Your task to perform on an android device: What is the recent news? Image 0: 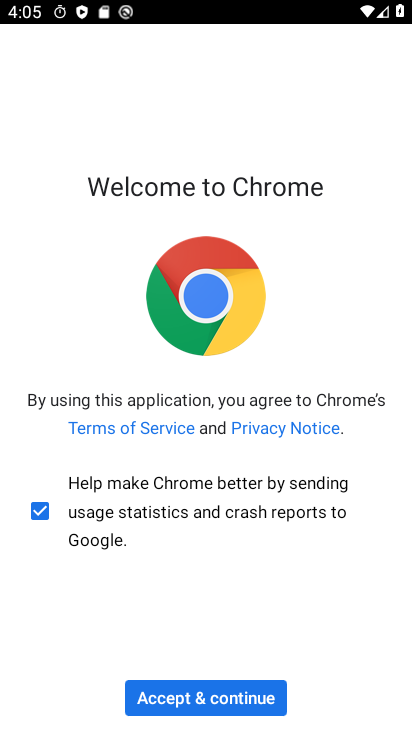
Step 0: press home button
Your task to perform on an android device: What is the recent news? Image 1: 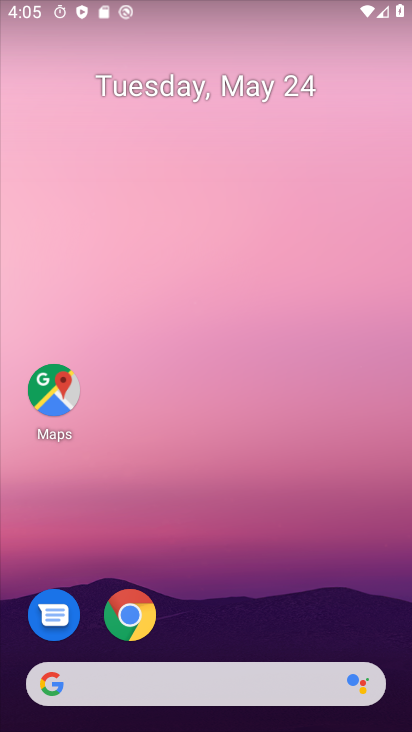
Step 1: click (122, 686)
Your task to perform on an android device: What is the recent news? Image 2: 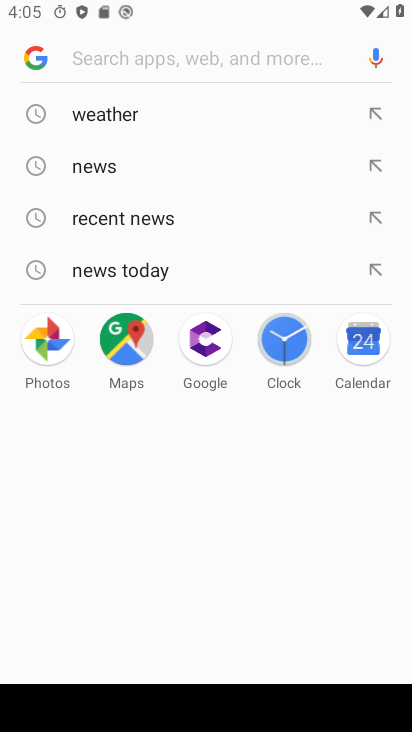
Step 2: click (153, 223)
Your task to perform on an android device: What is the recent news? Image 3: 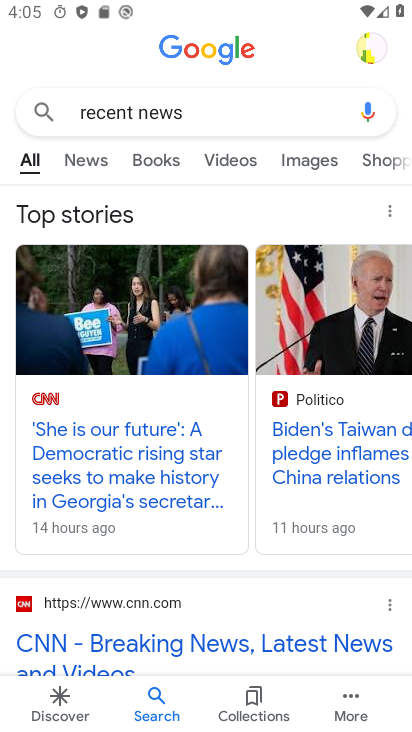
Step 3: task complete